Your task to perform on an android device: What's on my calendar today? Image 0: 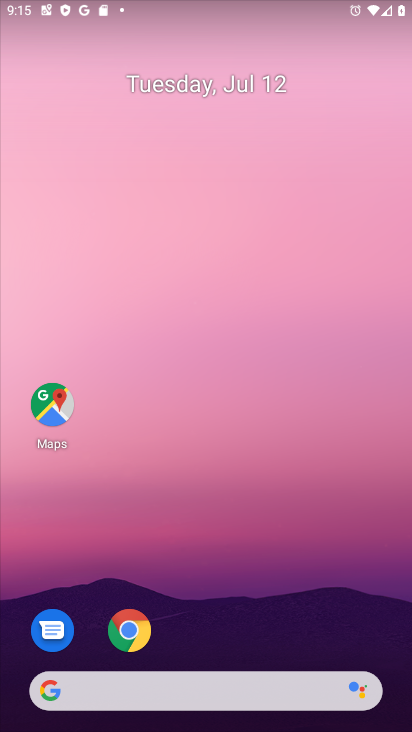
Step 0: drag from (206, 648) to (206, 142)
Your task to perform on an android device: What's on my calendar today? Image 1: 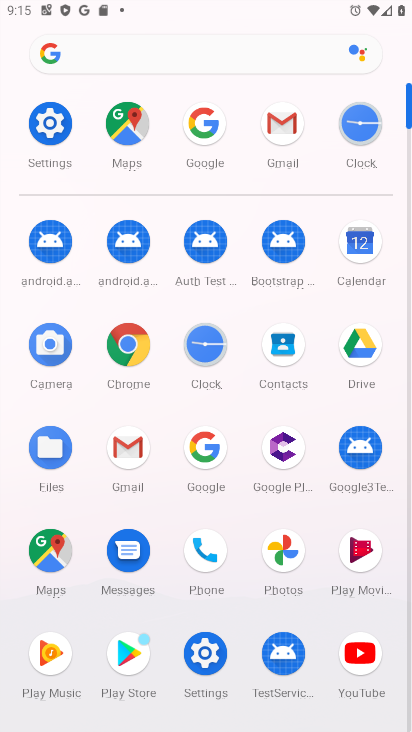
Step 1: click (362, 245)
Your task to perform on an android device: What's on my calendar today? Image 2: 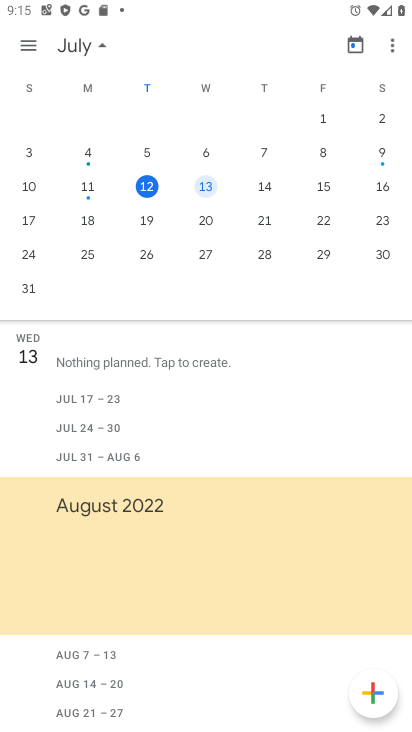
Step 2: click (147, 185)
Your task to perform on an android device: What's on my calendar today? Image 3: 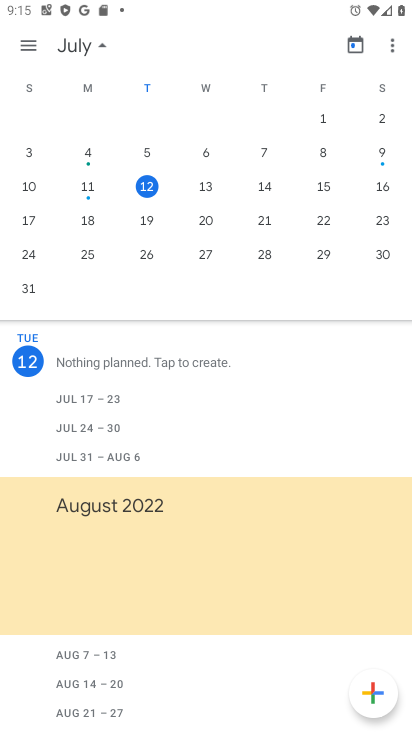
Step 3: task complete